Your task to perform on an android device: Go to settings Image 0: 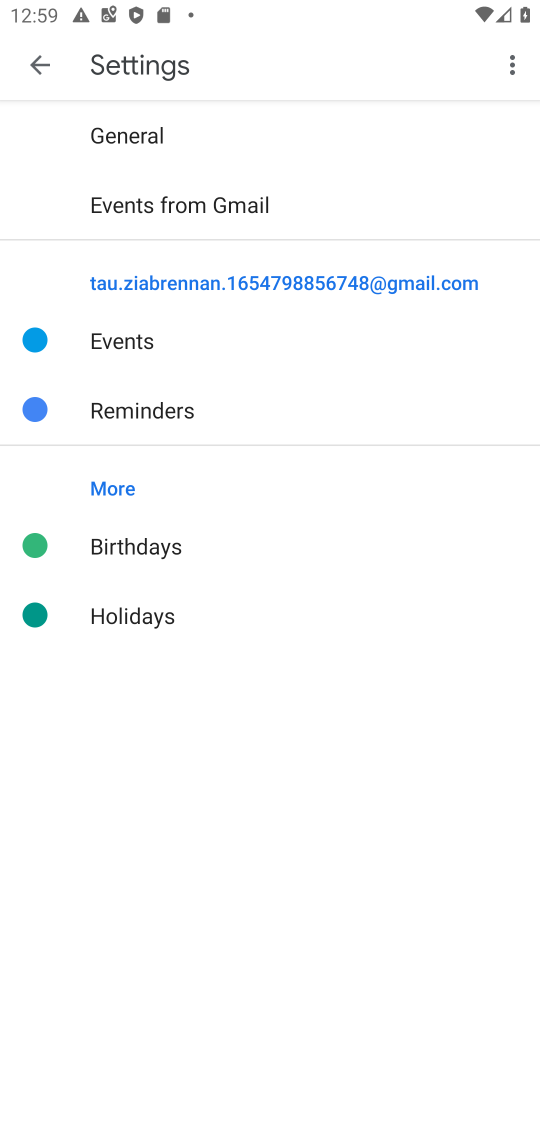
Step 0: press home button
Your task to perform on an android device: Go to settings Image 1: 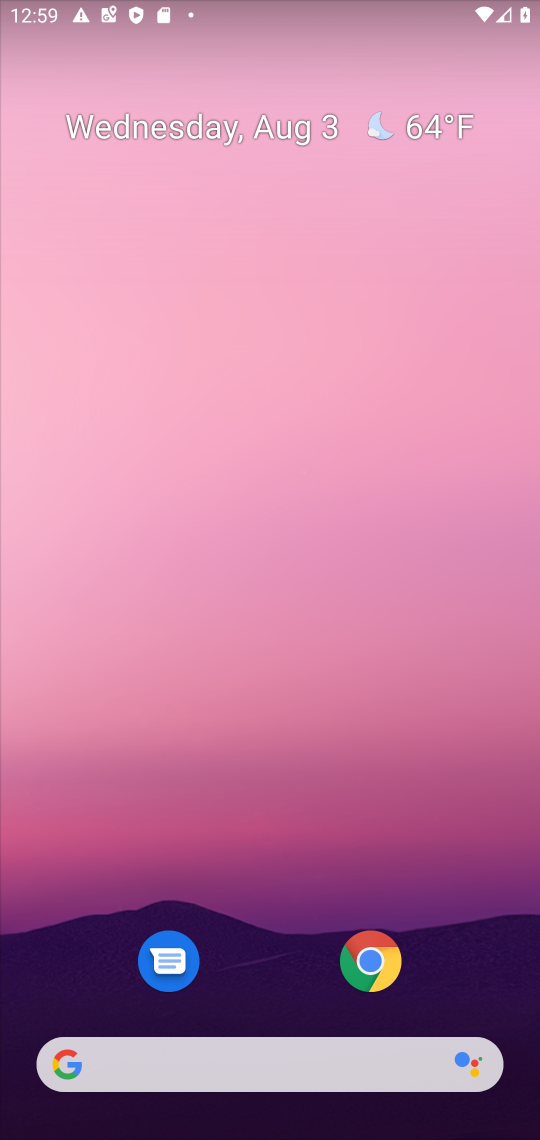
Step 1: drag from (290, 883) to (280, 151)
Your task to perform on an android device: Go to settings Image 2: 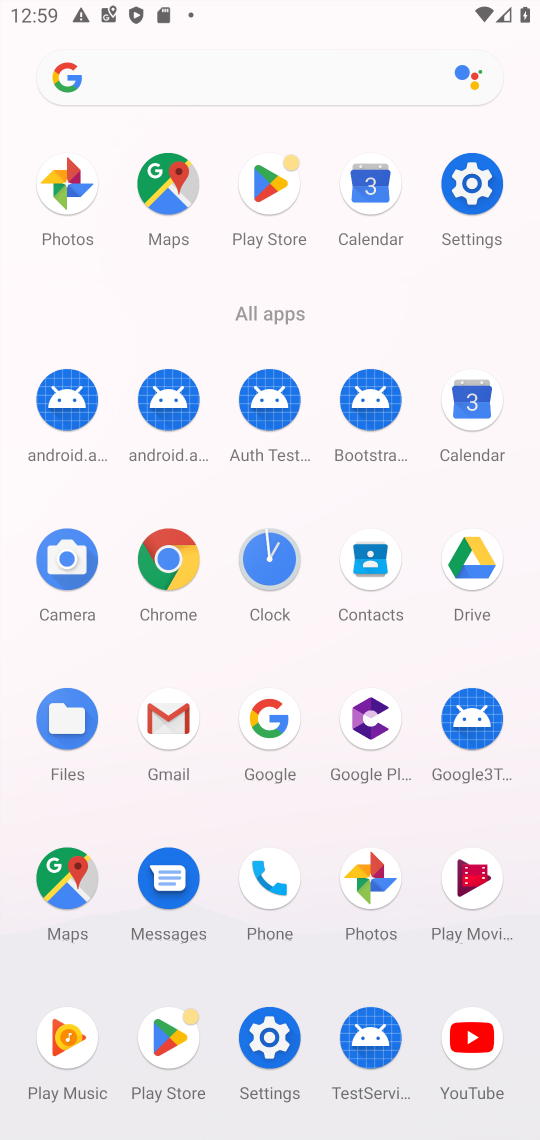
Step 2: click (478, 196)
Your task to perform on an android device: Go to settings Image 3: 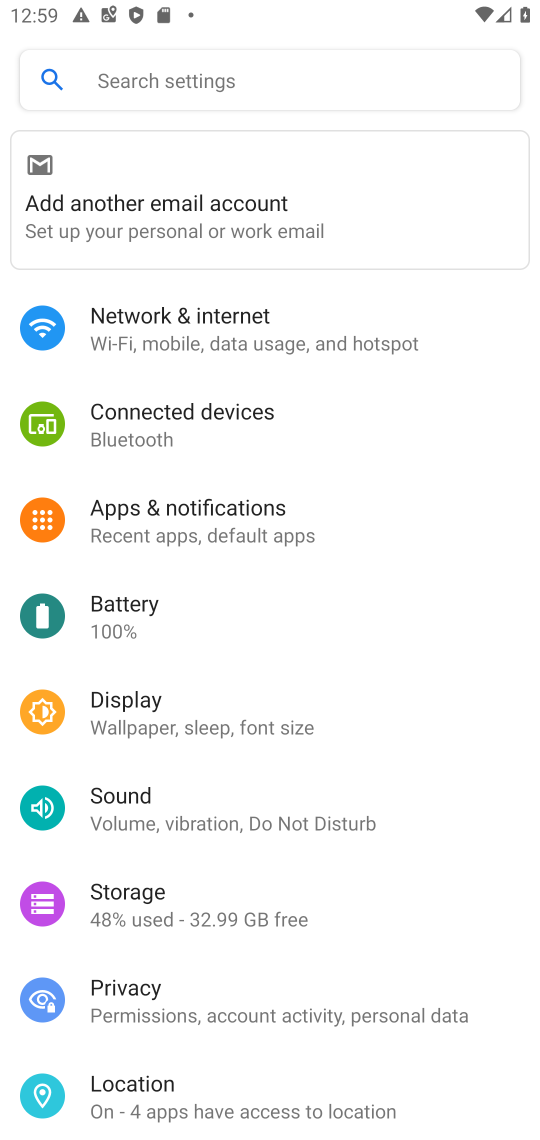
Step 3: task complete